Your task to perform on an android device: Show the shopping cart on newegg.com. Add bose quietcomfort 35 to the cart on newegg.com, then select checkout. Image 0: 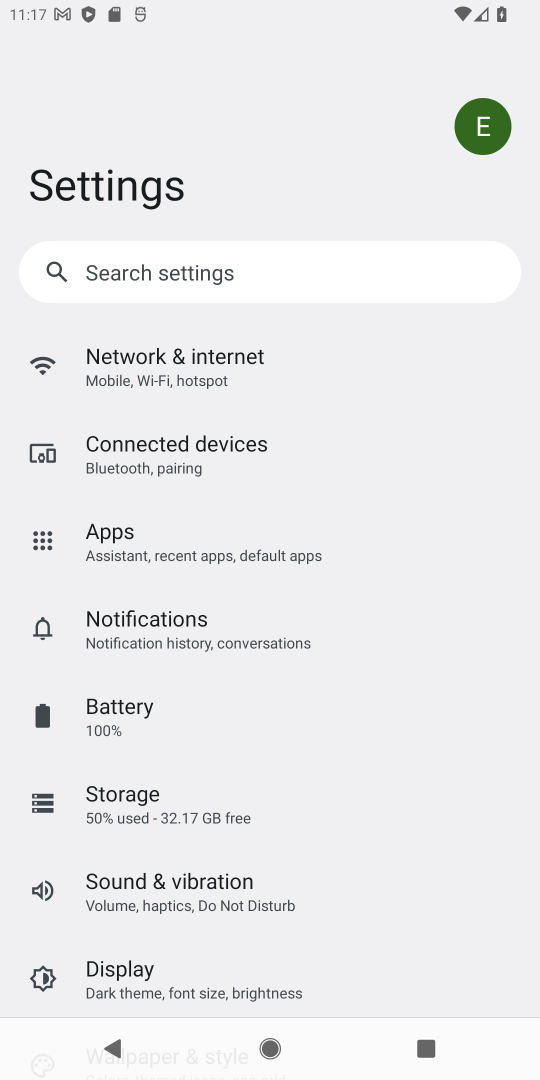
Step 0: press home button
Your task to perform on an android device: Show the shopping cart on newegg.com. Add bose quietcomfort 35 to the cart on newegg.com, then select checkout. Image 1: 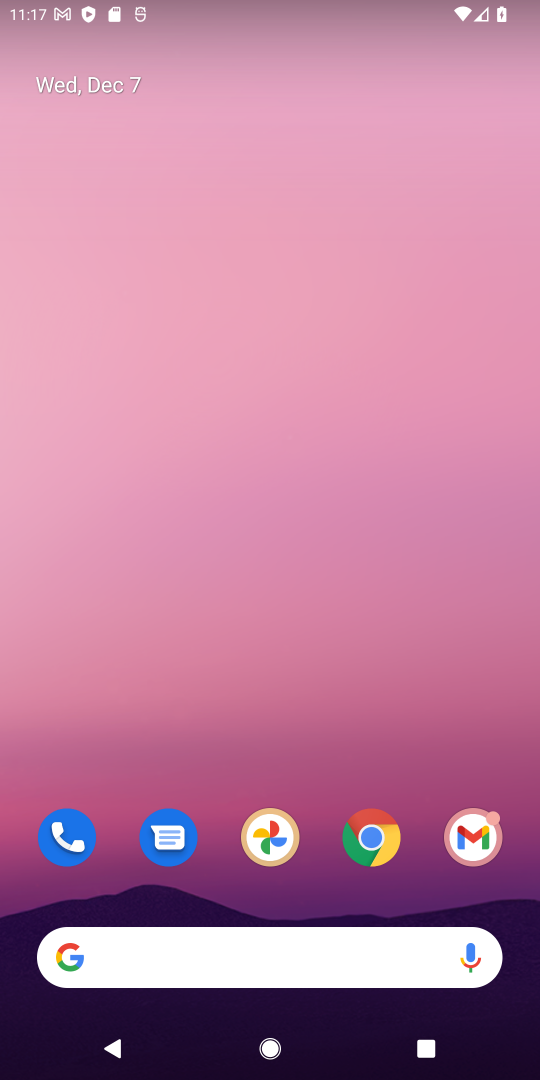
Step 1: click (362, 834)
Your task to perform on an android device: Show the shopping cart on newegg.com. Add bose quietcomfort 35 to the cart on newegg.com, then select checkout. Image 2: 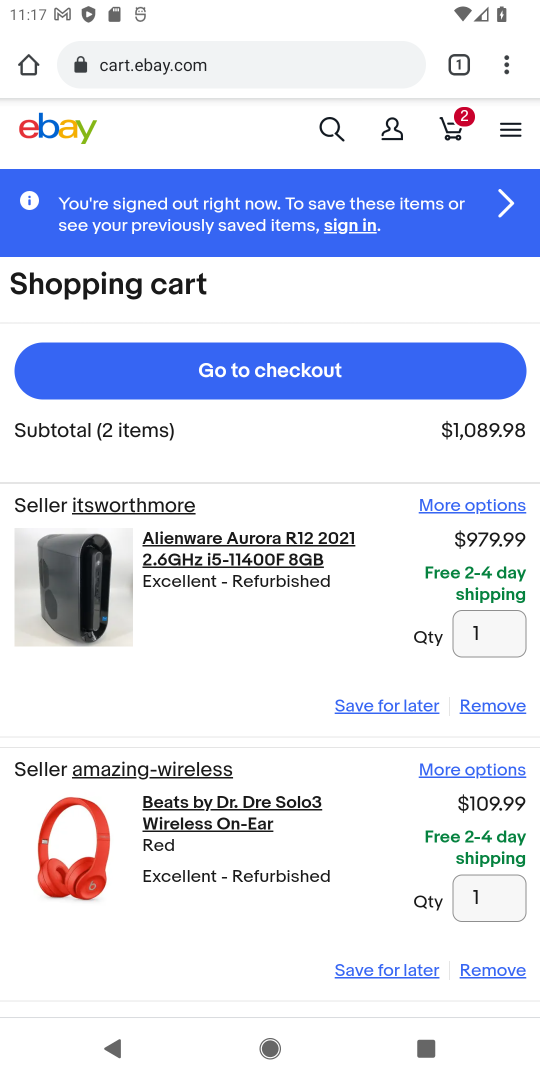
Step 2: click (297, 57)
Your task to perform on an android device: Show the shopping cart on newegg.com. Add bose quietcomfort 35 to the cart on newegg.com, then select checkout. Image 3: 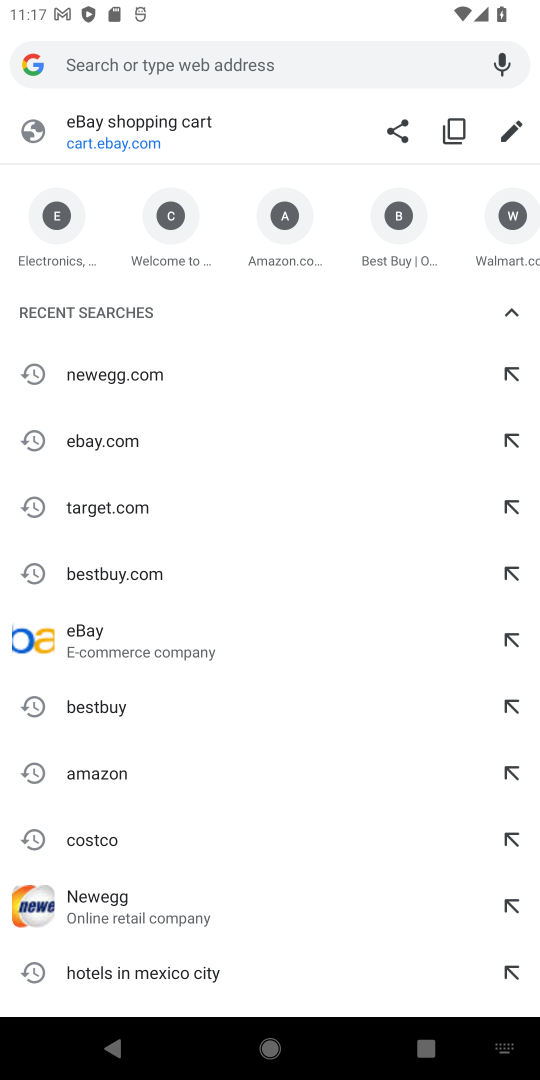
Step 3: click (136, 368)
Your task to perform on an android device: Show the shopping cart on newegg.com. Add bose quietcomfort 35 to the cart on newegg.com, then select checkout. Image 4: 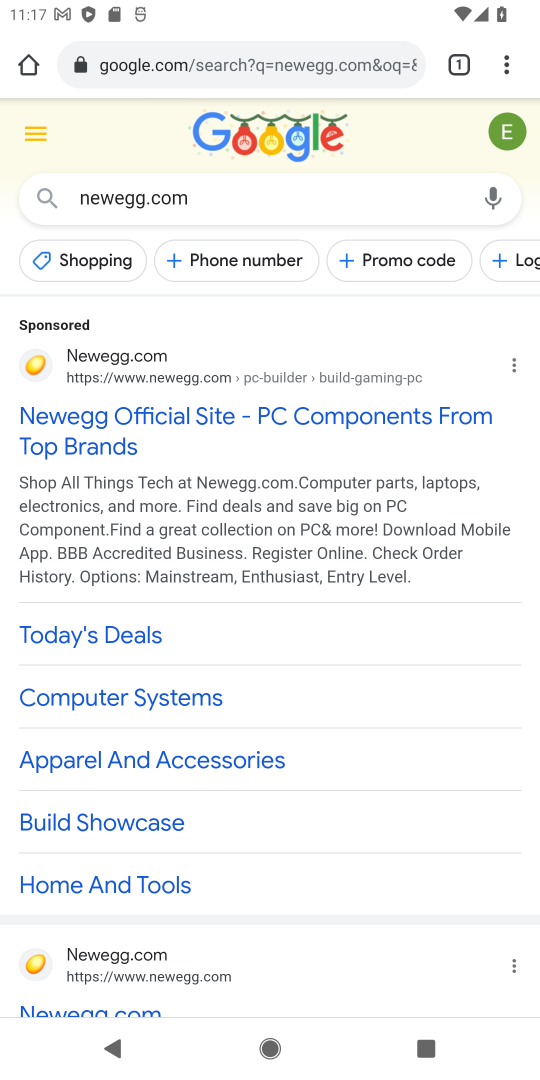
Step 4: click (153, 363)
Your task to perform on an android device: Show the shopping cart on newegg.com. Add bose quietcomfort 35 to the cart on newegg.com, then select checkout. Image 5: 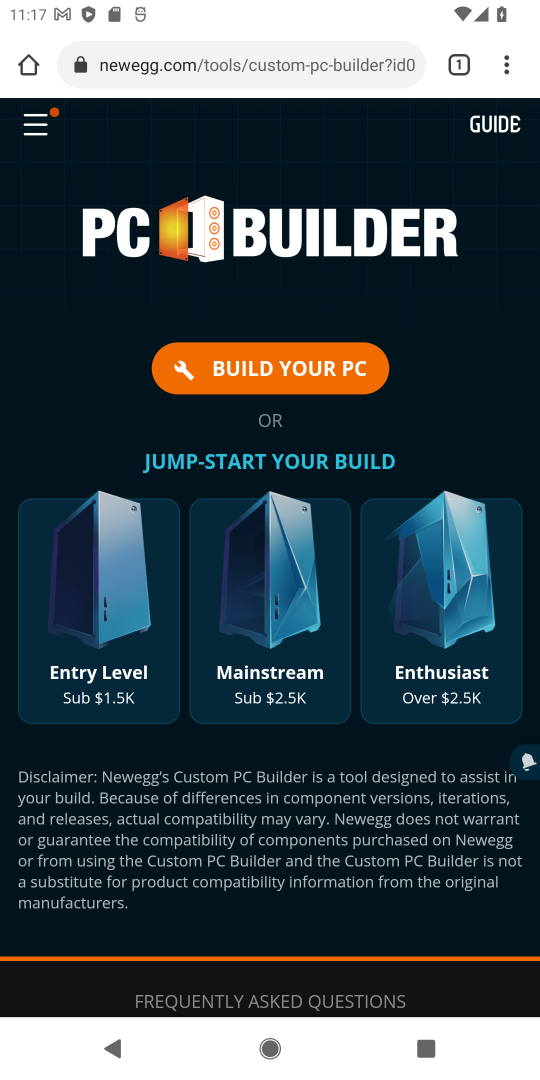
Step 5: press back button
Your task to perform on an android device: Show the shopping cart on newegg.com. Add bose quietcomfort 35 to the cart on newegg.com, then select checkout. Image 6: 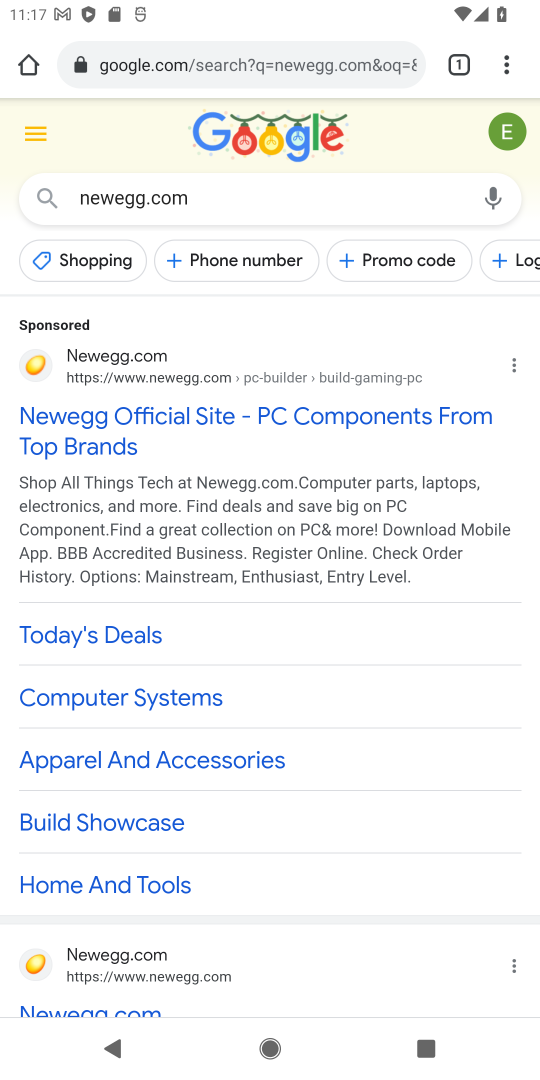
Step 6: drag from (222, 782) to (267, 492)
Your task to perform on an android device: Show the shopping cart on newegg.com. Add bose quietcomfort 35 to the cart on newegg.com, then select checkout. Image 7: 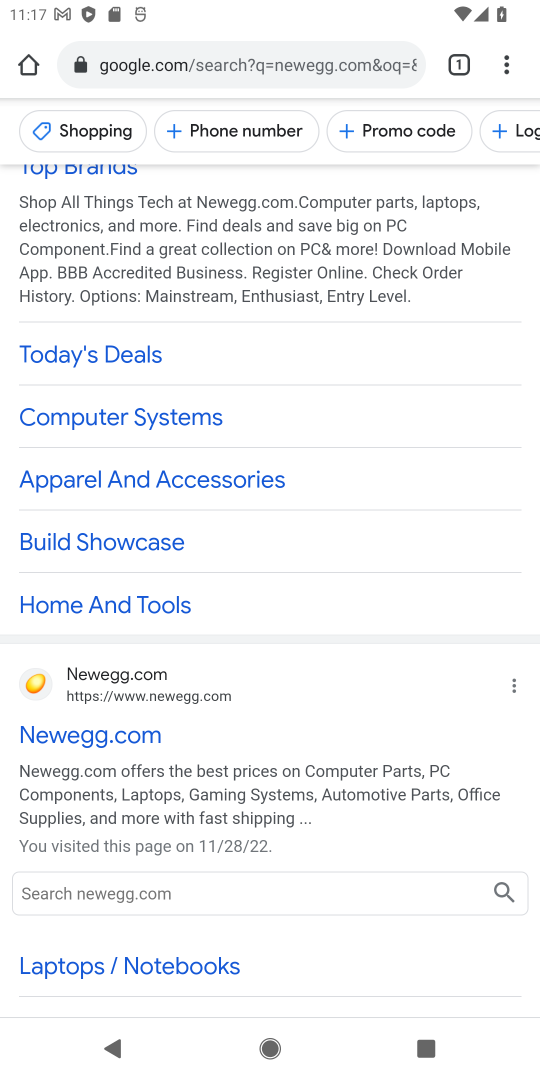
Step 7: click (153, 690)
Your task to perform on an android device: Show the shopping cart on newegg.com. Add bose quietcomfort 35 to the cart on newegg.com, then select checkout. Image 8: 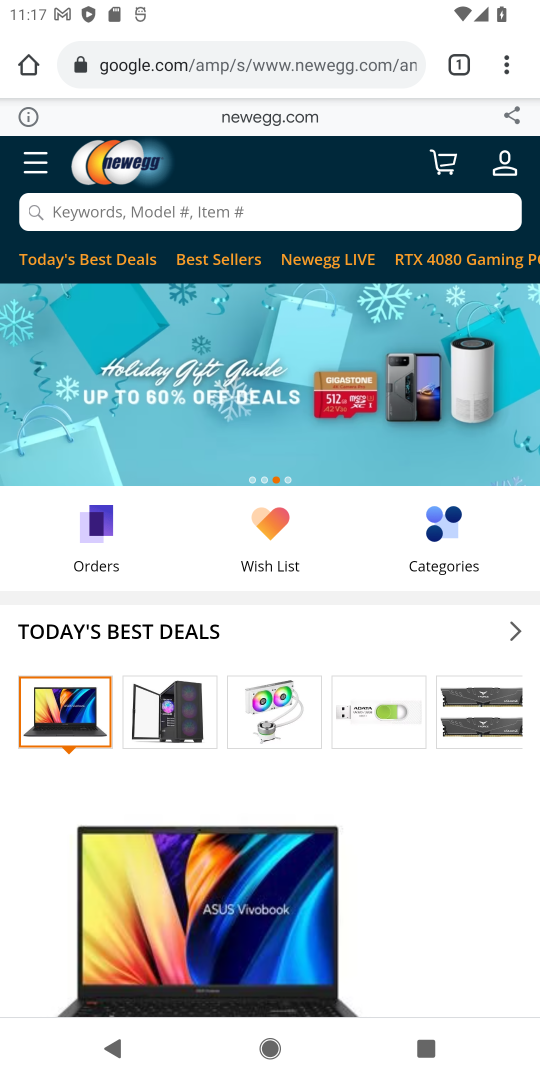
Step 8: click (371, 210)
Your task to perform on an android device: Show the shopping cart on newegg.com. Add bose quietcomfort 35 to the cart on newegg.com, then select checkout. Image 9: 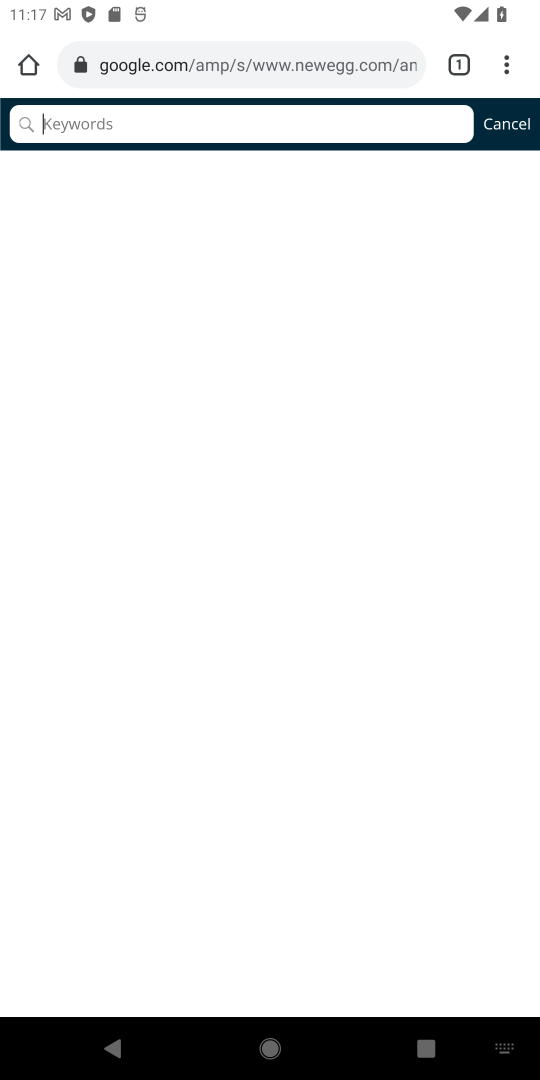
Step 9: type "bose quietcomfort 35"
Your task to perform on an android device: Show the shopping cart on newegg.com. Add bose quietcomfort 35 to the cart on newegg.com, then select checkout. Image 10: 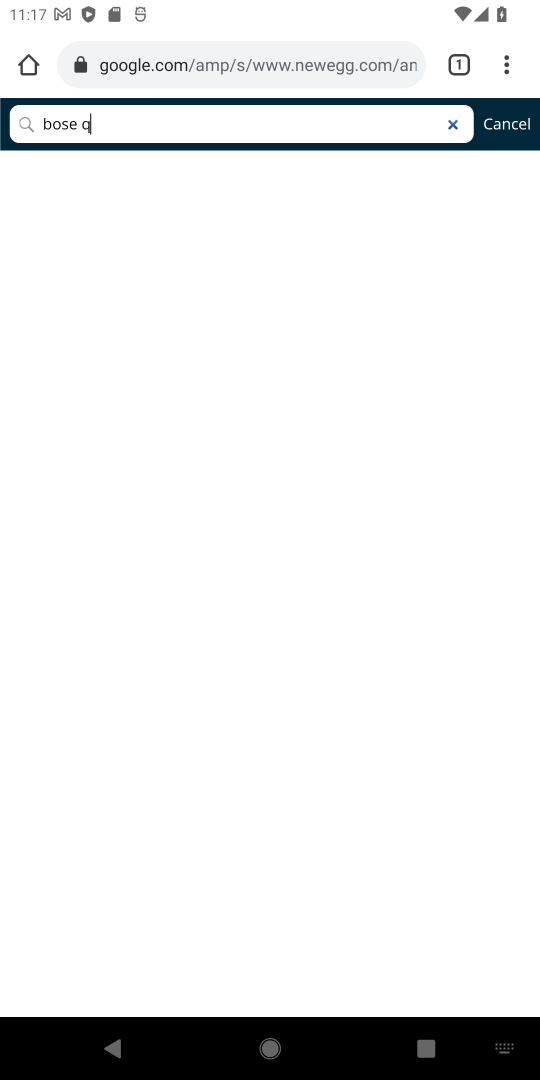
Step 10: press enter
Your task to perform on an android device: Show the shopping cart on newegg.com. Add bose quietcomfort 35 to the cart on newegg.com, then select checkout. Image 11: 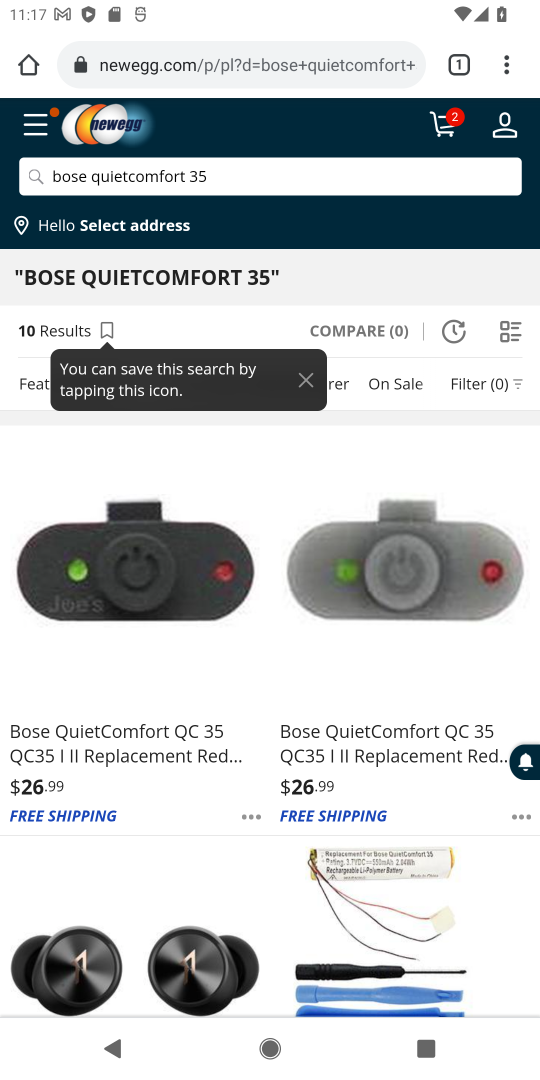
Step 11: click (116, 568)
Your task to perform on an android device: Show the shopping cart on newegg.com. Add bose quietcomfort 35 to the cart on newegg.com, then select checkout. Image 12: 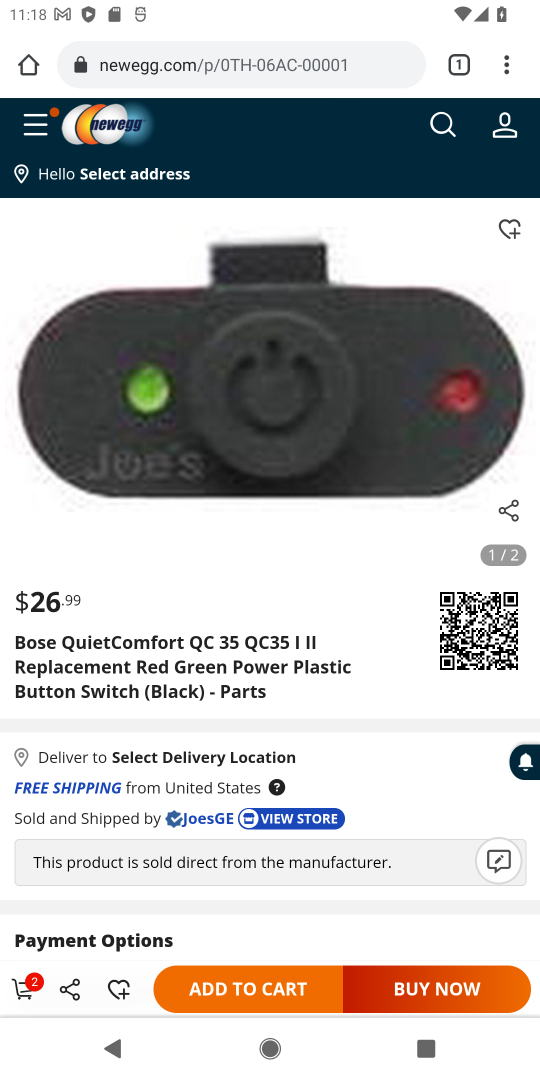
Step 12: click (269, 984)
Your task to perform on an android device: Show the shopping cart on newegg.com. Add bose quietcomfort 35 to the cart on newegg.com, then select checkout. Image 13: 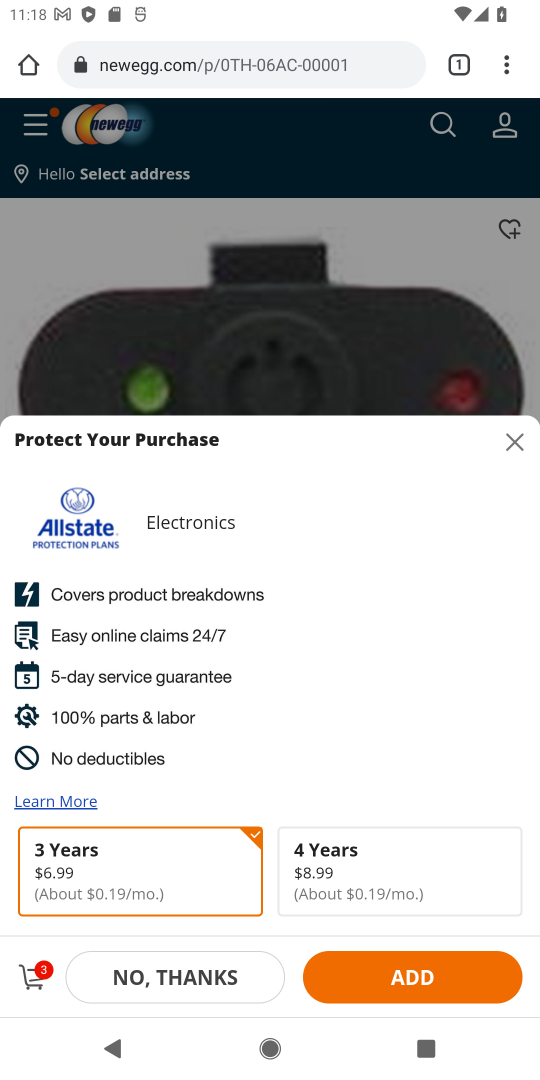
Step 13: click (37, 974)
Your task to perform on an android device: Show the shopping cart on newegg.com. Add bose quietcomfort 35 to the cart on newegg.com, then select checkout. Image 14: 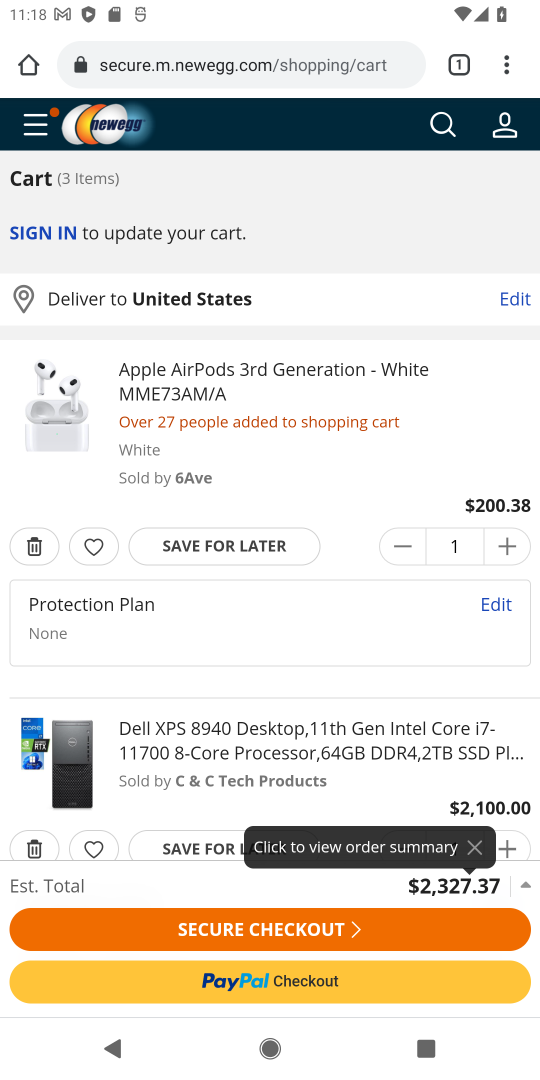
Step 14: drag from (336, 699) to (452, 126)
Your task to perform on an android device: Show the shopping cart on newegg.com. Add bose quietcomfort 35 to the cart on newegg.com, then select checkout. Image 15: 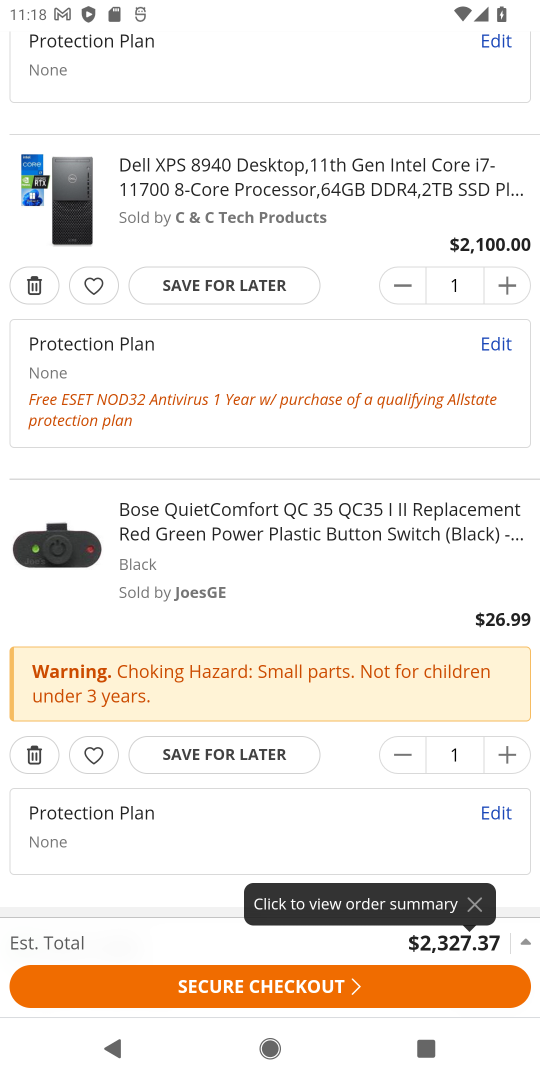
Step 15: click (257, 980)
Your task to perform on an android device: Show the shopping cart on newegg.com. Add bose quietcomfort 35 to the cart on newegg.com, then select checkout. Image 16: 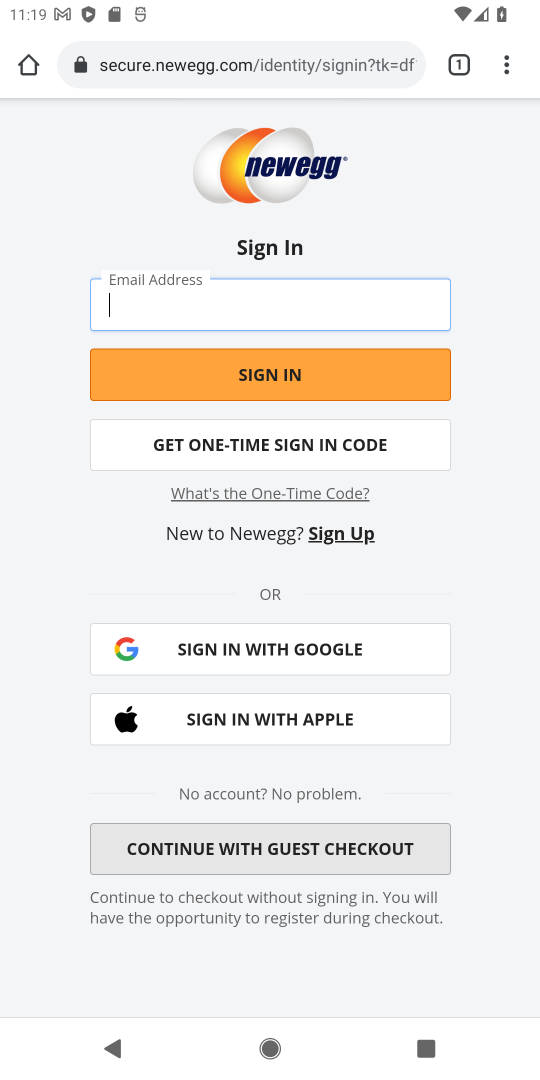
Step 16: task complete